Your task to perform on an android device: change timer sound Image 0: 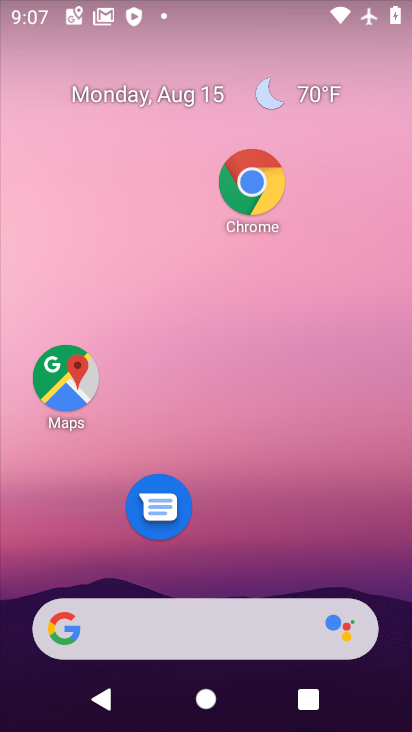
Step 0: drag from (304, 586) to (316, 13)
Your task to perform on an android device: change timer sound Image 1: 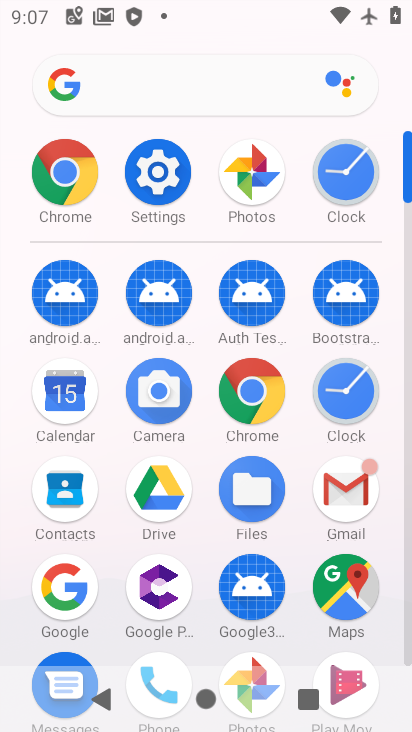
Step 1: click (198, 191)
Your task to perform on an android device: change timer sound Image 2: 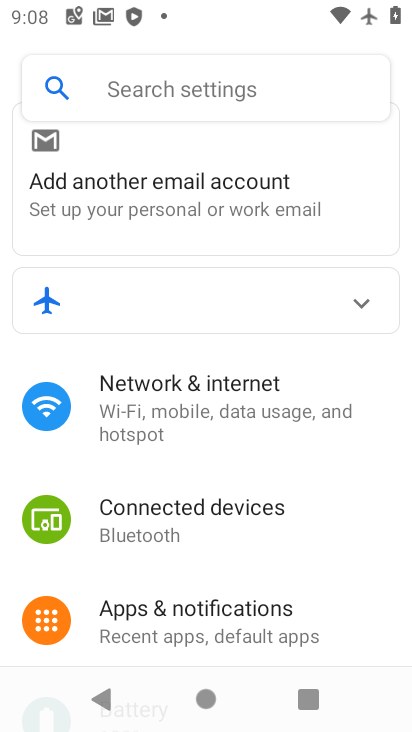
Step 2: press home button
Your task to perform on an android device: change timer sound Image 3: 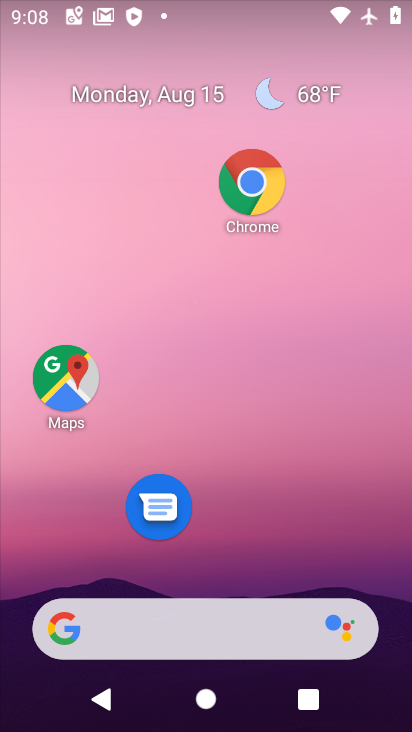
Step 3: drag from (274, 601) to (289, 171)
Your task to perform on an android device: change timer sound Image 4: 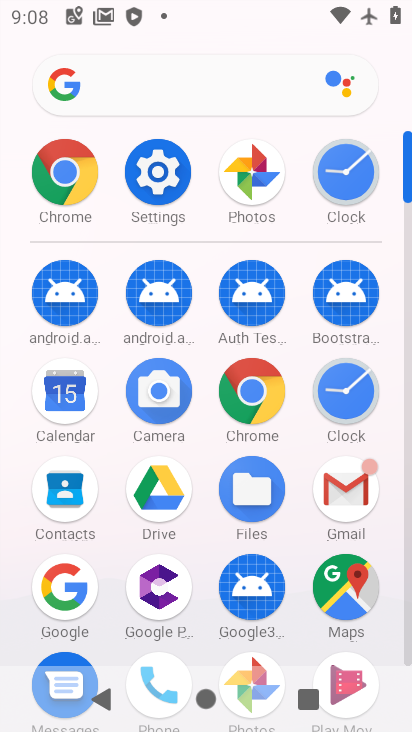
Step 4: click (360, 424)
Your task to perform on an android device: change timer sound Image 5: 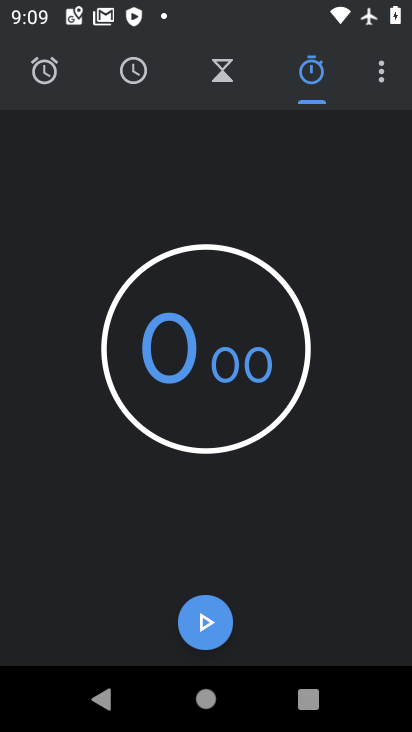
Step 5: click (368, 85)
Your task to perform on an android device: change timer sound Image 6: 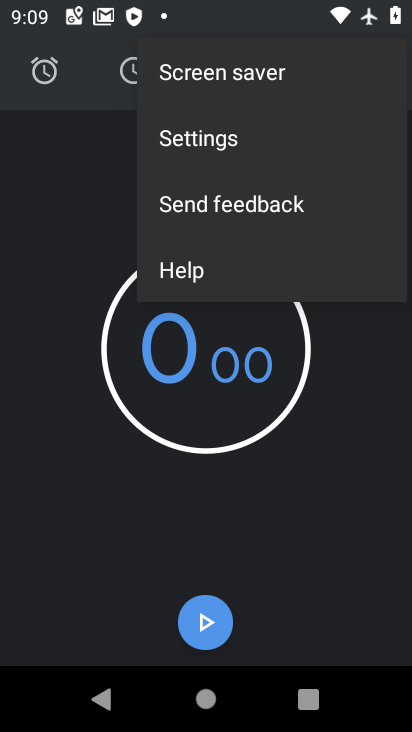
Step 6: click (259, 151)
Your task to perform on an android device: change timer sound Image 7: 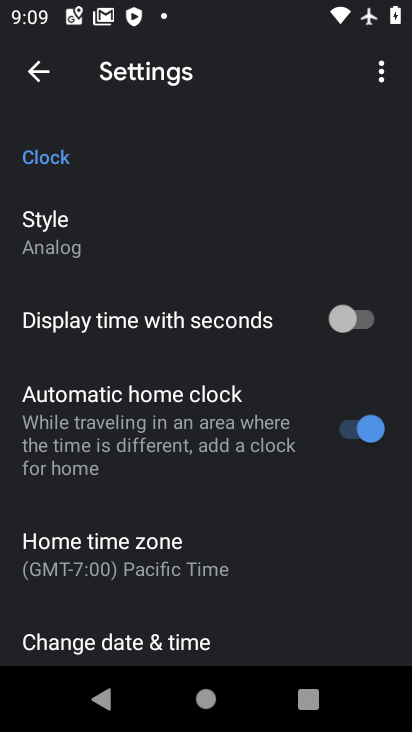
Step 7: task complete